Your task to perform on an android device: Empty the shopping cart on target. Image 0: 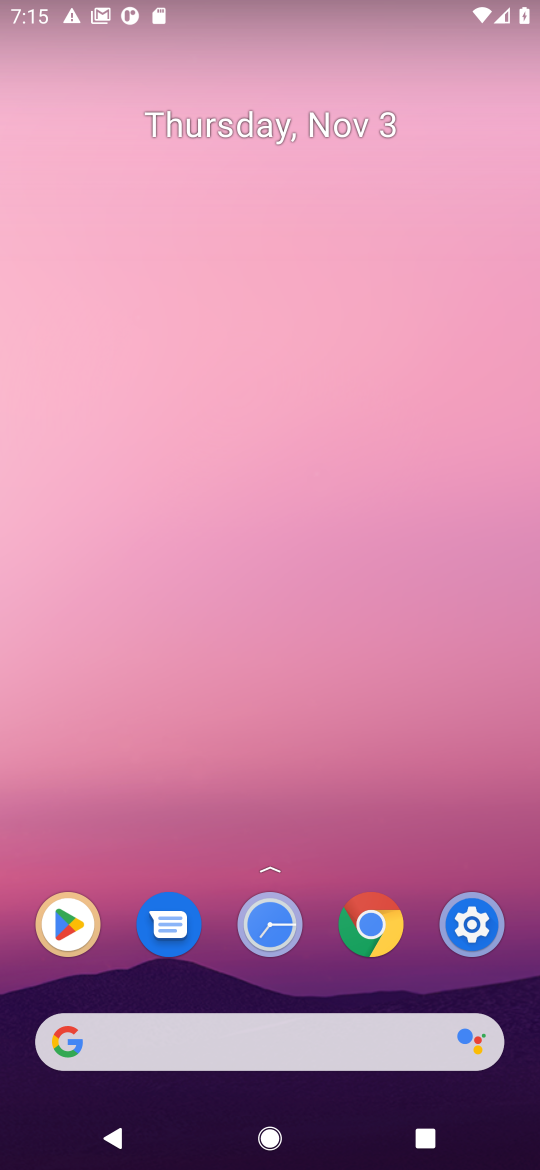
Step 0: click (284, 1034)
Your task to perform on an android device: Empty the shopping cart on target. Image 1: 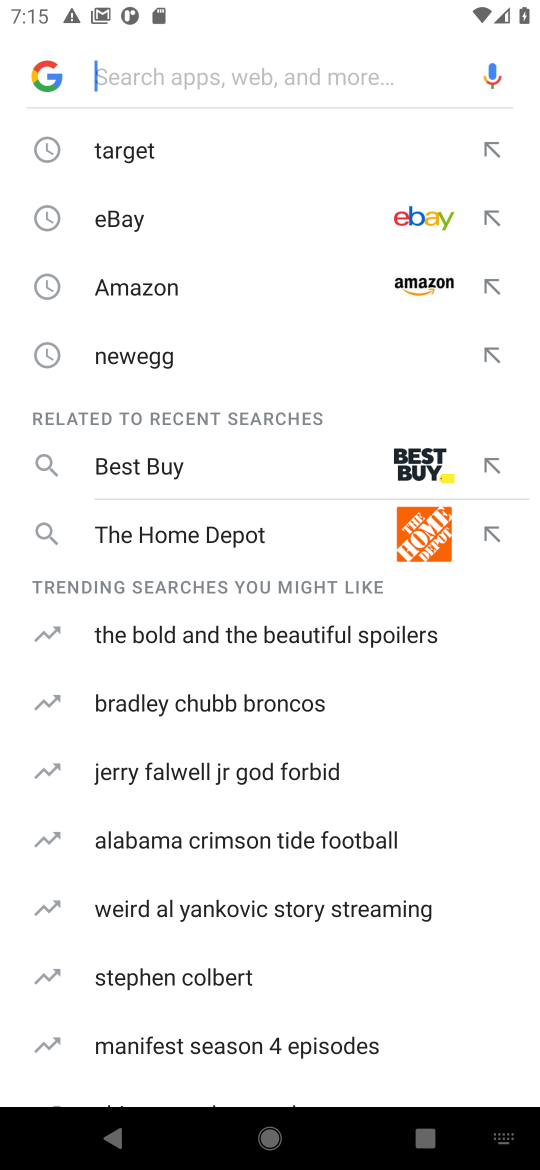
Step 1: click (136, 149)
Your task to perform on an android device: Empty the shopping cart on target. Image 2: 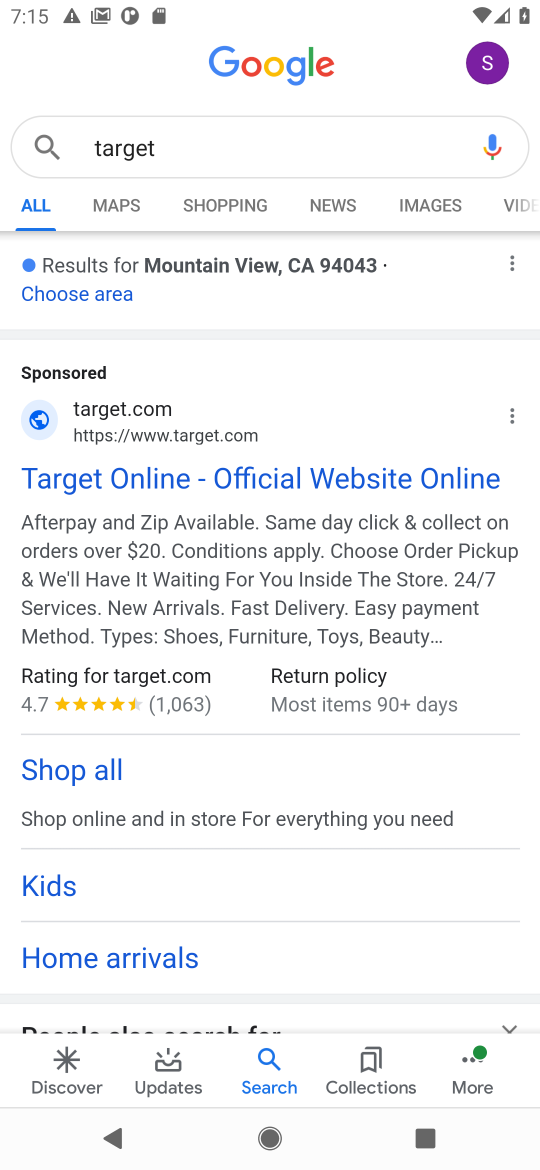
Step 2: drag from (220, 857) to (183, 600)
Your task to perform on an android device: Empty the shopping cart on target. Image 3: 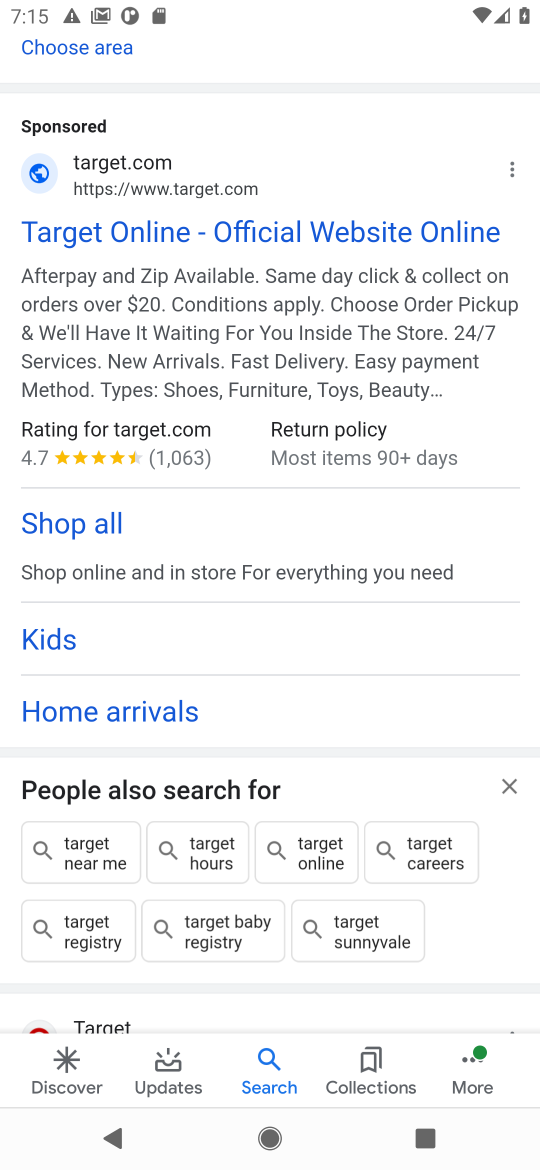
Step 3: drag from (265, 672) to (233, 439)
Your task to perform on an android device: Empty the shopping cart on target. Image 4: 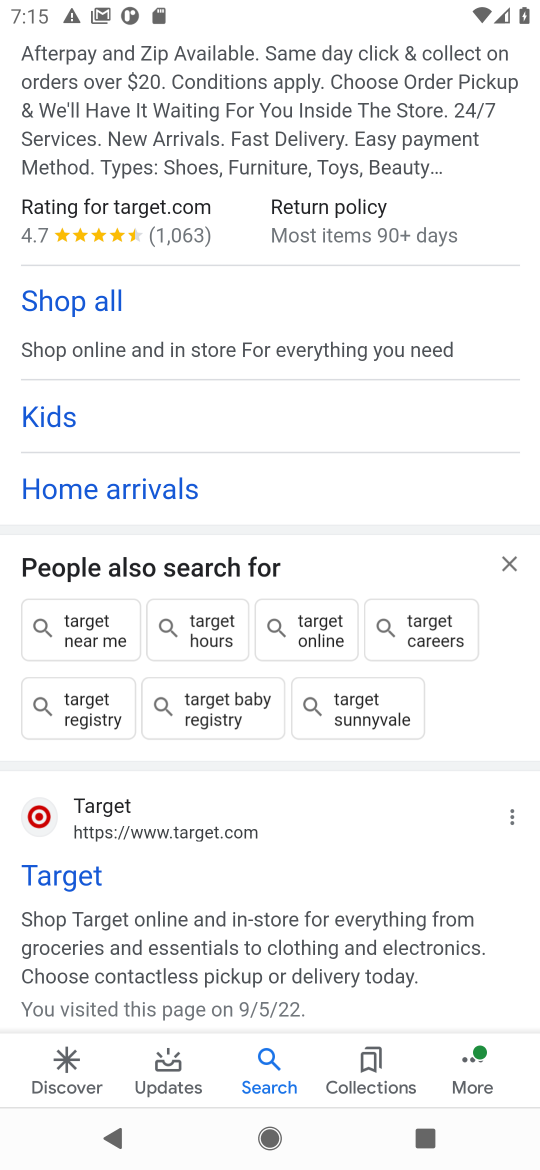
Step 4: click (71, 867)
Your task to perform on an android device: Empty the shopping cart on target. Image 5: 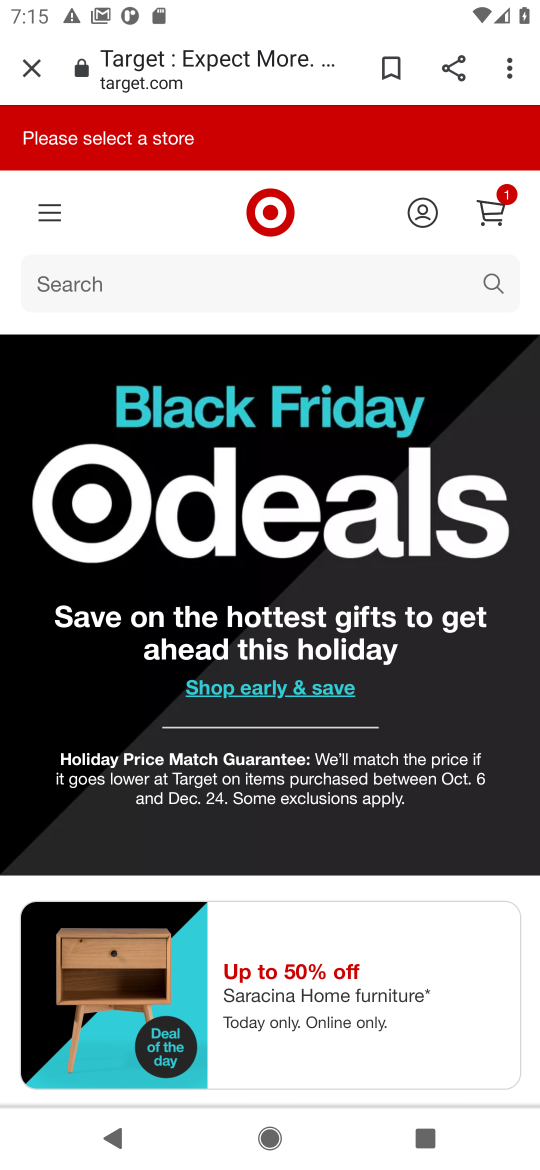
Step 5: click (500, 201)
Your task to perform on an android device: Empty the shopping cart on target. Image 6: 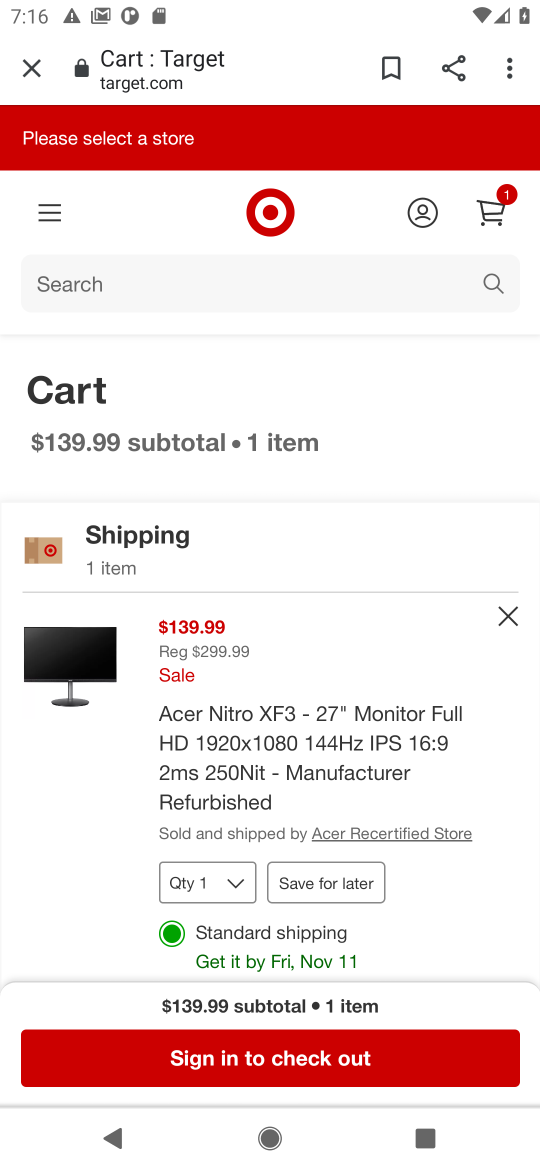
Step 6: click (510, 611)
Your task to perform on an android device: Empty the shopping cart on target. Image 7: 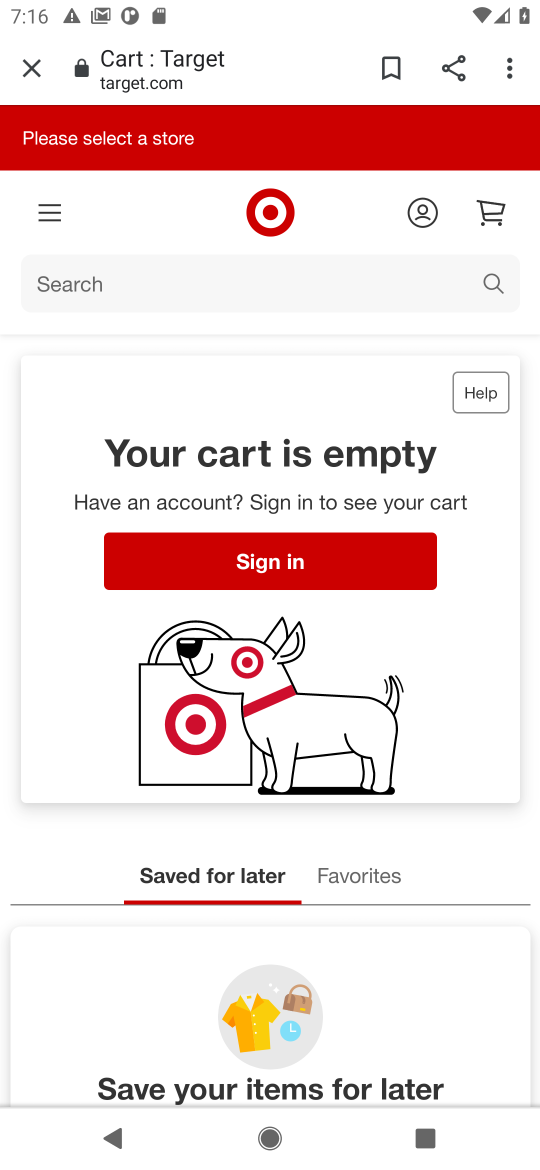
Step 7: task complete